Your task to perform on an android device: Open Chrome and go to the settings page Image 0: 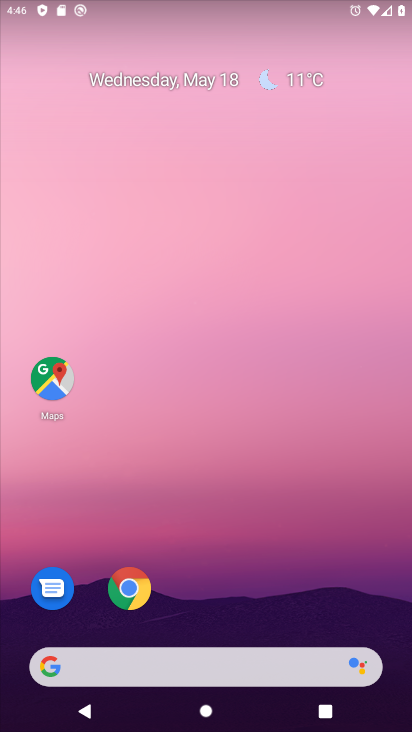
Step 0: drag from (286, 554) to (151, 85)
Your task to perform on an android device: Open Chrome and go to the settings page Image 1: 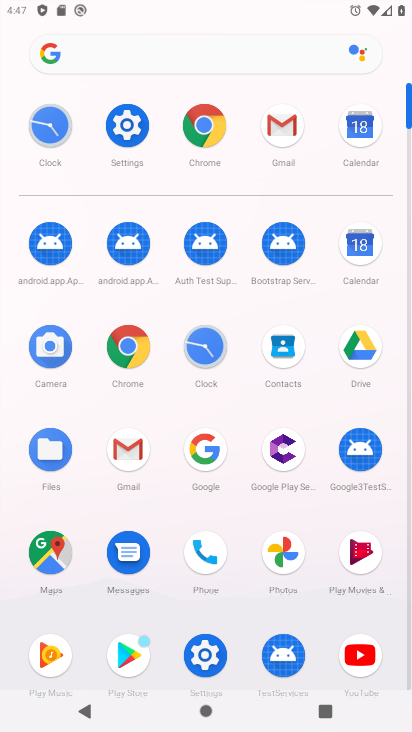
Step 1: click (123, 332)
Your task to perform on an android device: Open Chrome and go to the settings page Image 2: 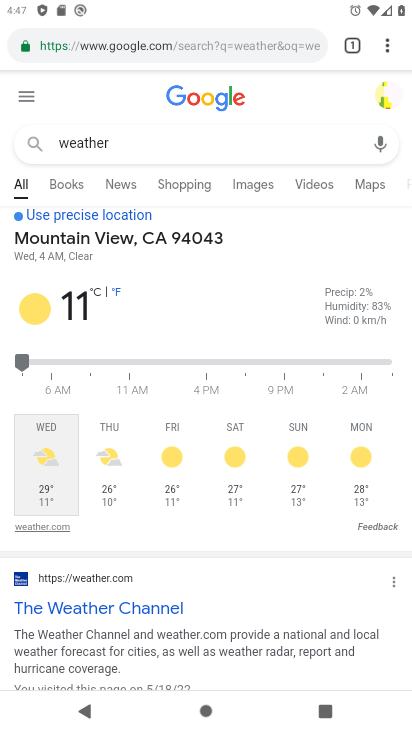
Step 2: task complete